Your task to perform on an android device: Open Google Chrome and open the bookmarks view Image 0: 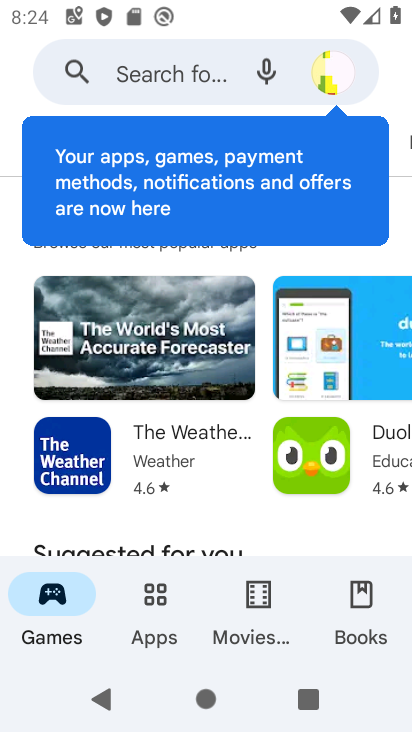
Step 0: press home button
Your task to perform on an android device: Open Google Chrome and open the bookmarks view Image 1: 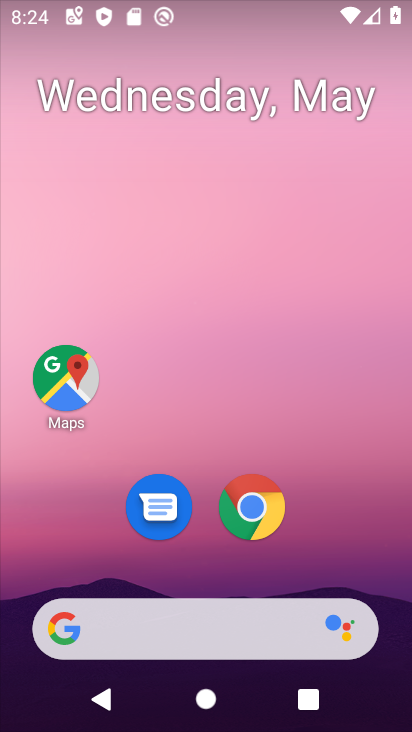
Step 1: click (238, 504)
Your task to perform on an android device: Open Google Chrome and open the bookmarks view Image 2: 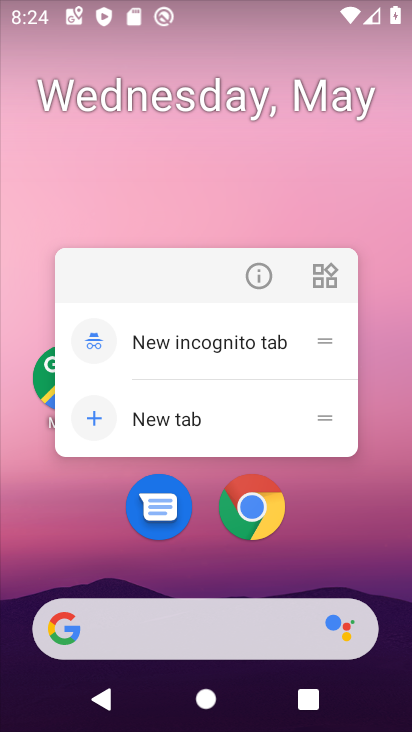
Step 2: click (239, 503)
Your task to perform on an android device: Open Google Chrome and open the bookmarks view Image 3: 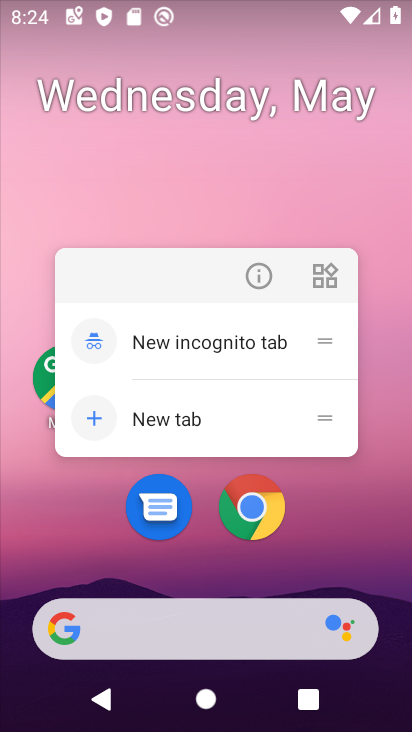
Step 3: click (252, 502)
Your task to perform on an android device: Open Google Chrome and open the bookmarks view Image 4: 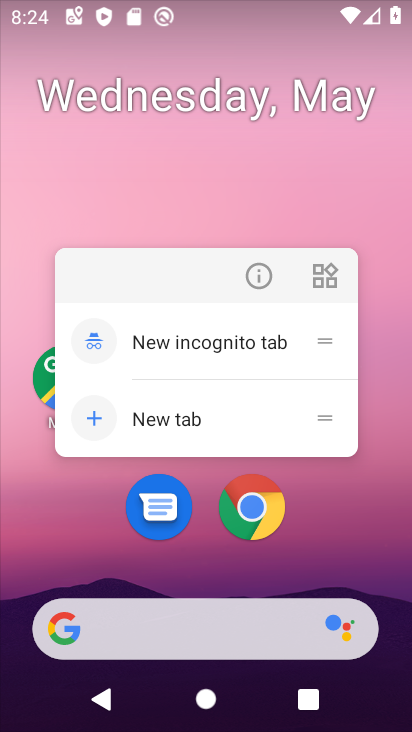
Step 4: click (258, 512)
Your task to perform on an android device: Open Google Chrome and open the bookmarks view Image 5: 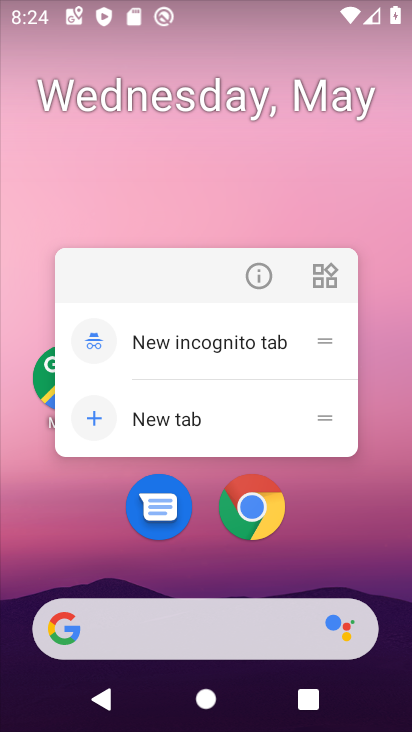
Step 5: click (316, 568)
Your task to perform on an android device: Open Google Chrome and open the bookmarks view Image 6: 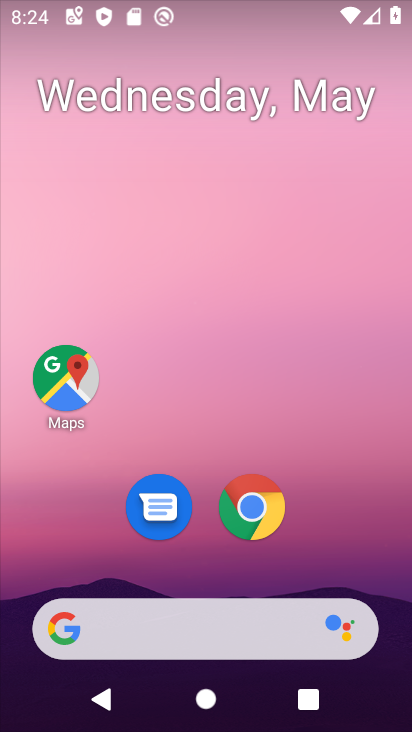
Step 6: drag from (267, 573) to (244, 196)
Your task to perform on an android device: Open Google Chrome and open the bookmarks view Image 7: 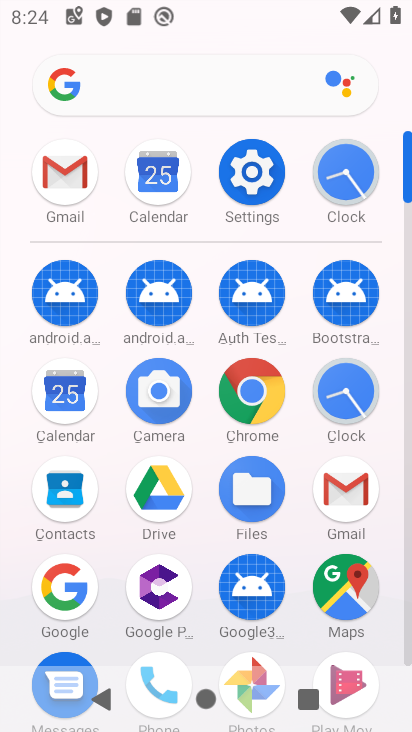
Step 7: click (240, 392)
Your task to perform on an android device: Open Google Chrome and open the bookmarks view Image 8: 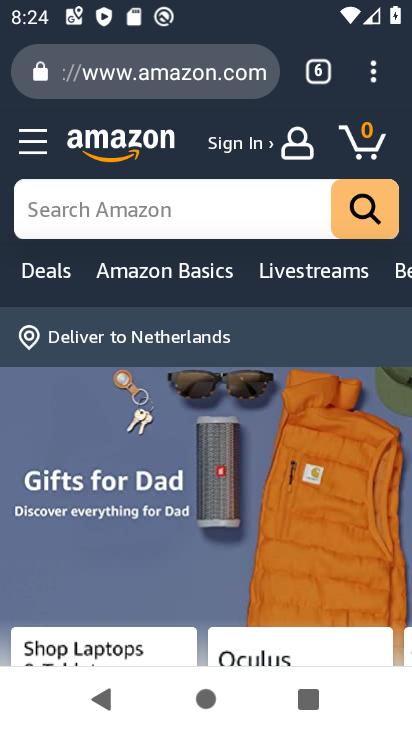
Step 8: click (376, 74)
Your task to perform on an android device: Open Google Chrome and open the bookmarks view Image 9: 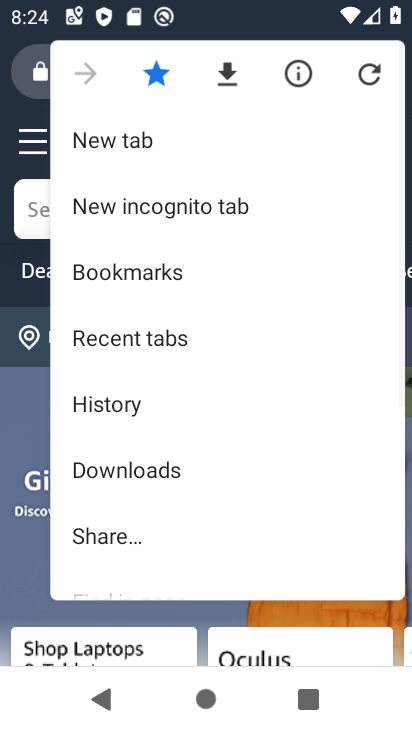
Step 9: click (156, 273)
Your task to perform on an android device: Open Google Chrome and open the bookmarks view Image 10: 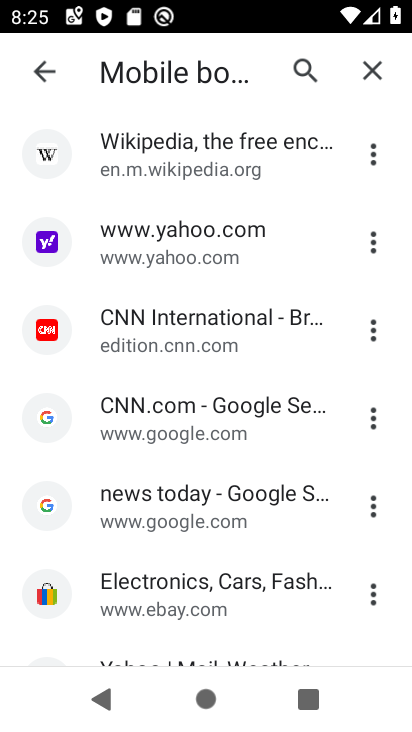
Step 10: task complete